Your task to perform on an android device: visit the assistant section in the google photos Image 0: 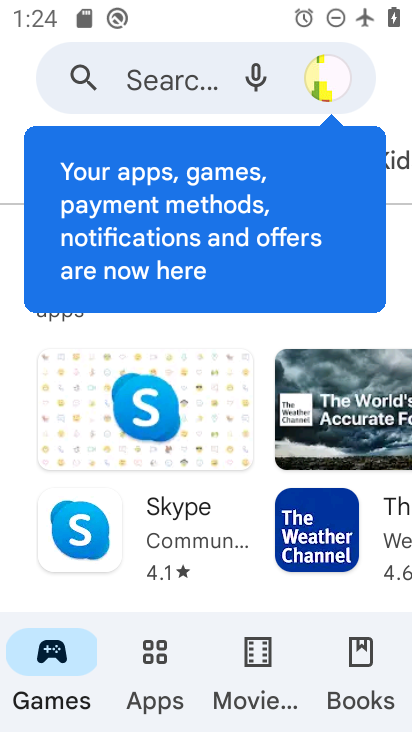
Step 0: press home button
Your task to perform on an android device: visit the assistant section in the google photos Image 1: 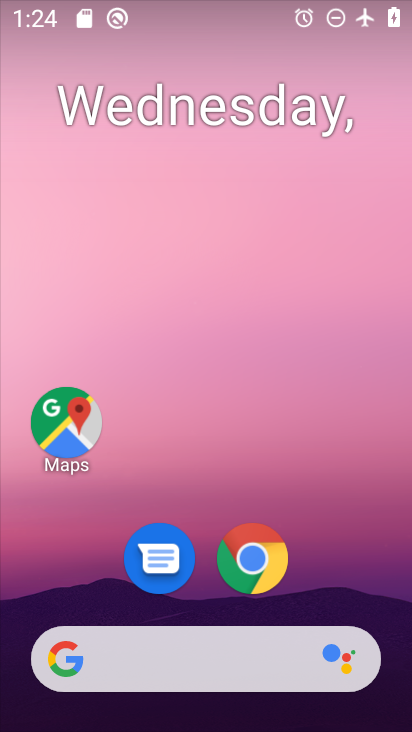
Step 1: drag from (397, 676) to (376, 166)
Your task to perform on an android device: visit the assistant section in the google photos Image 2: 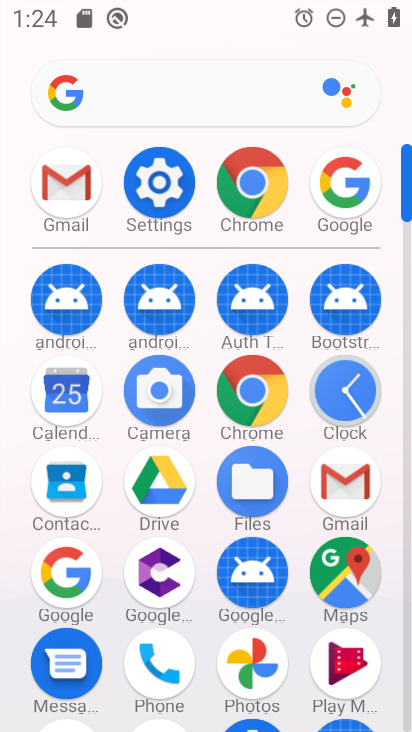
Step 2: click (272, 654)
Your task to perform on an android device: visit the assistant section in the google photos Image 3: 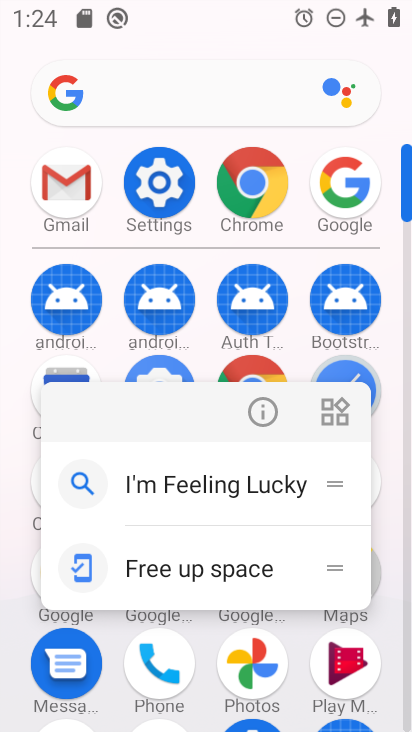
Step 3: click (272, 654)
Your task to perform on an android device: visit the assistant section in the google photos Image 4: 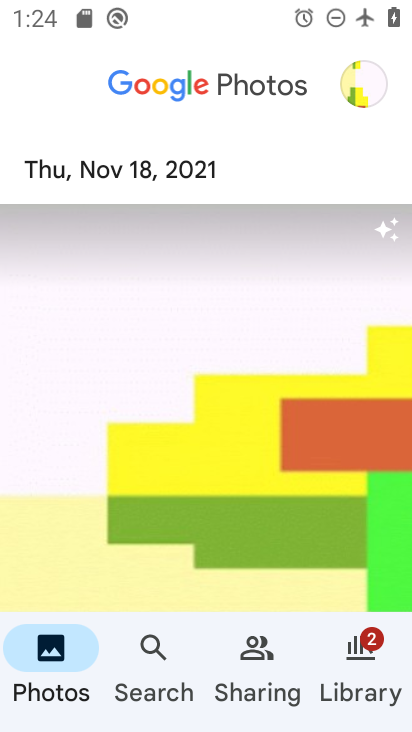
Step 4: task complete